Your task to perform on an android device: turn on improve location accuracy Image 0: 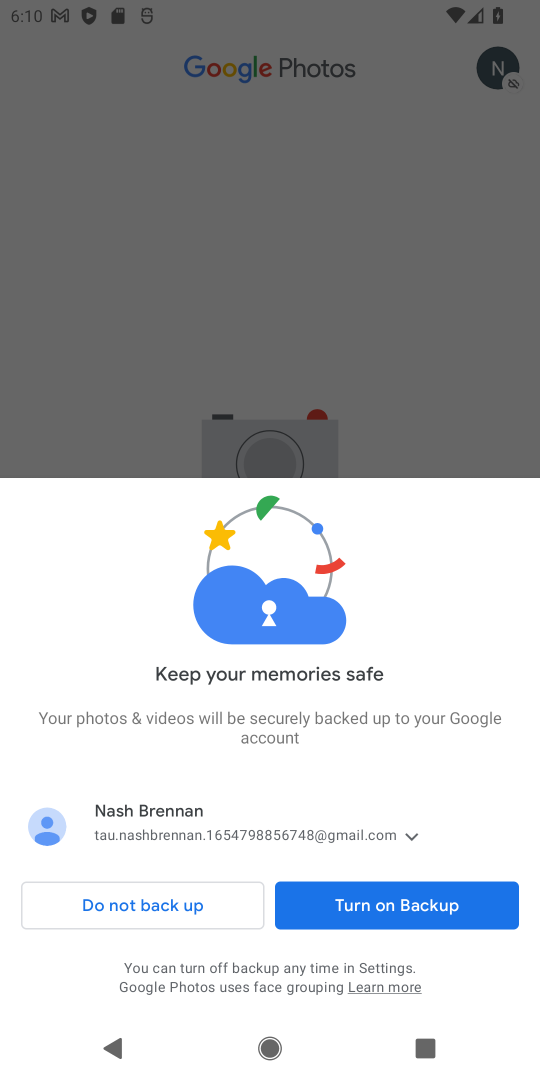
Step 0: press home button
Your task to perform on an android device: turn on improve location accuracy Image 1: 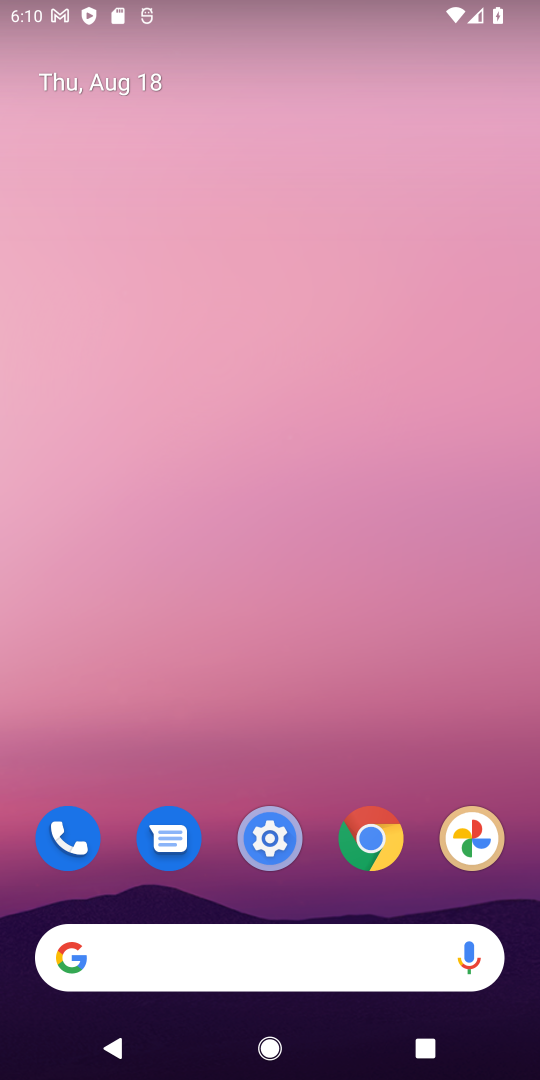
Step 1: click (272, 864)
Your task to perform on an android device: turn on improve location accuracy Image 2: 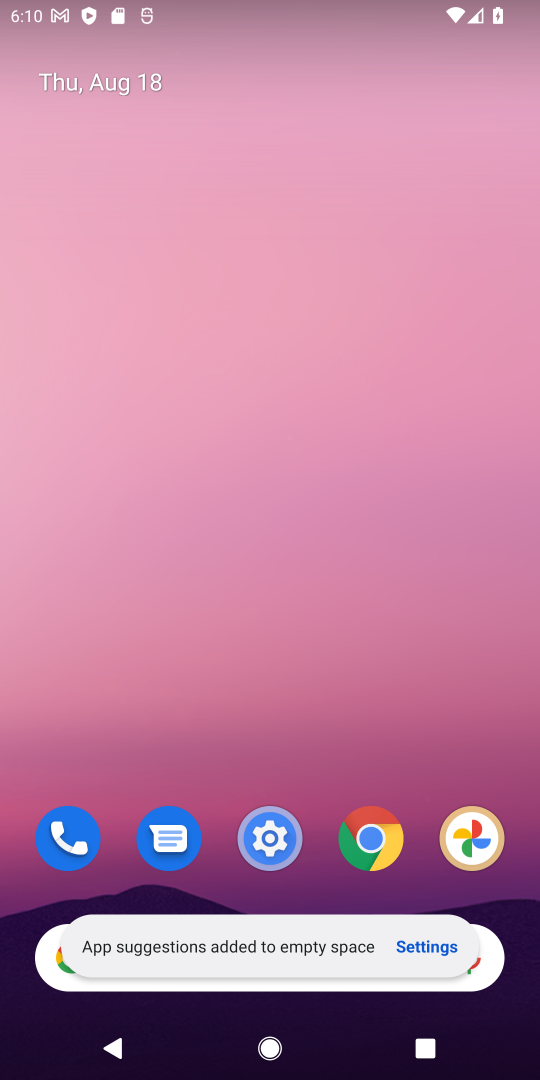
Step 2: click (275, 838)
Your task to perform on an android device: turn on improve location accuracy Image 3: 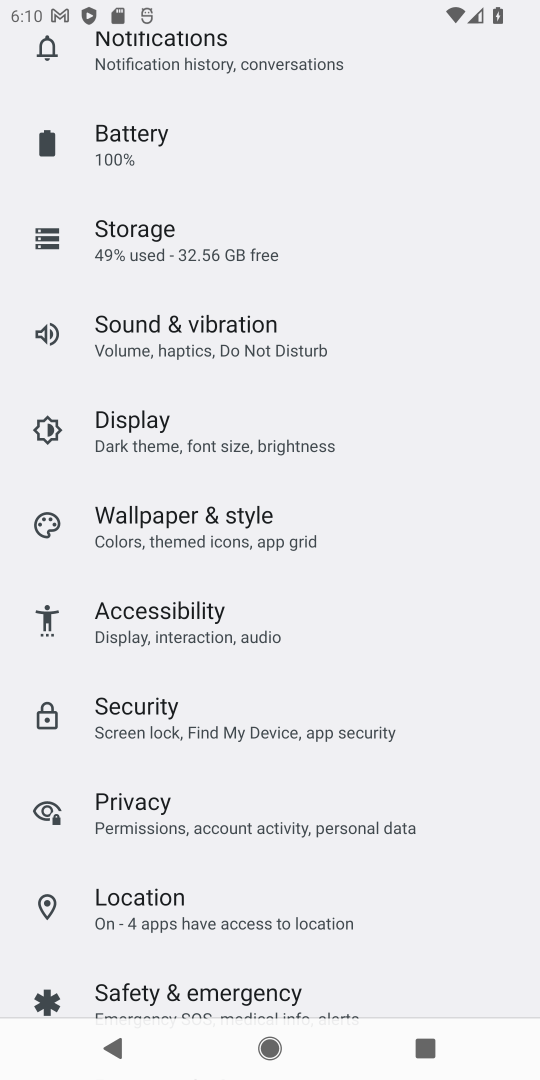
Step 3: click (147, 901)
Your task to perform on an android device: turn on improve location accuracy Image 4: 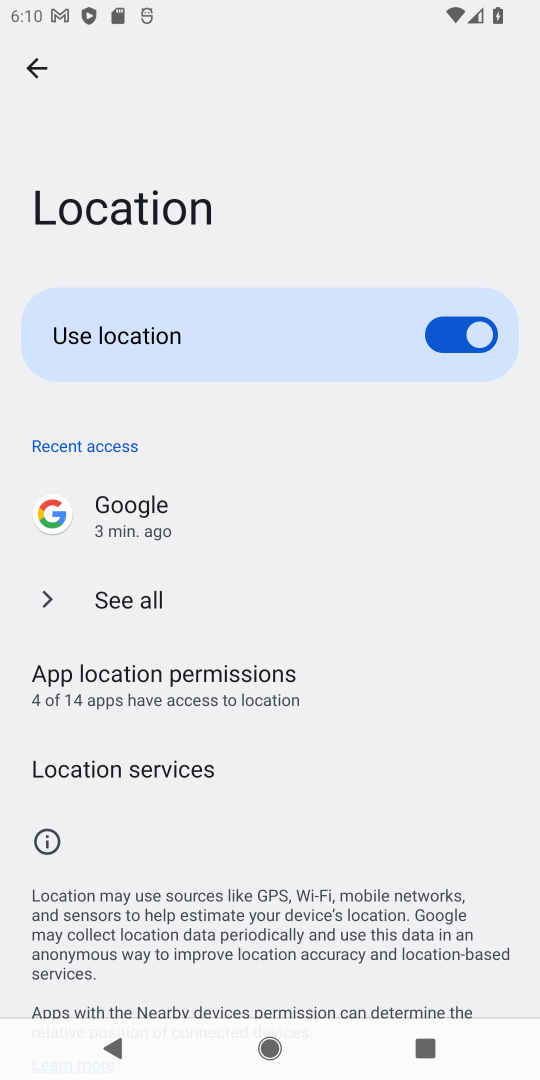
Step 4: click (114, 777)
Your task to perform on an android device: turn on improve location accuracy Image 5: 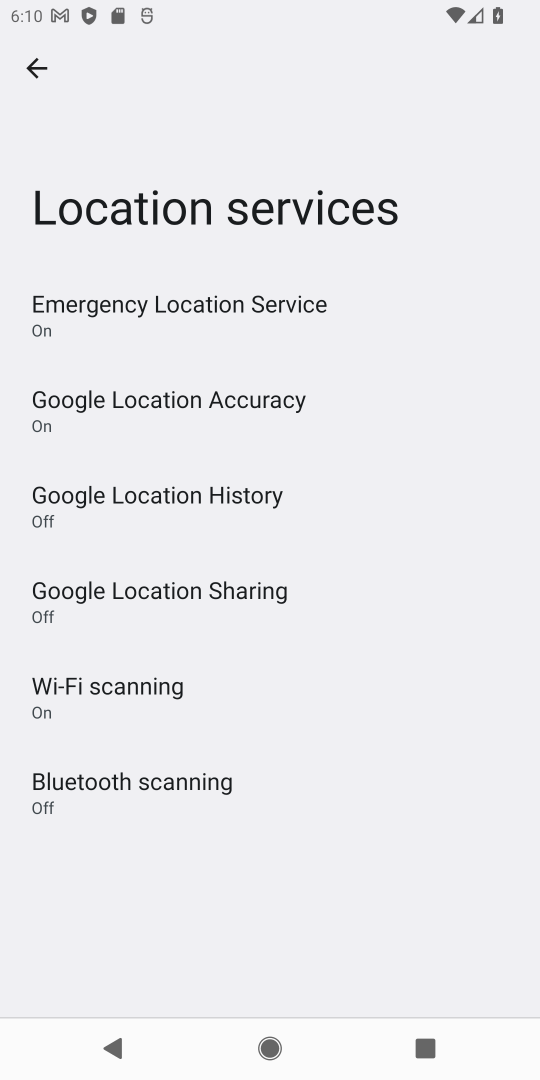
Step 5: click (177, 407)
Your task to perform on an android device: turn on improve location accuracy Image 6: 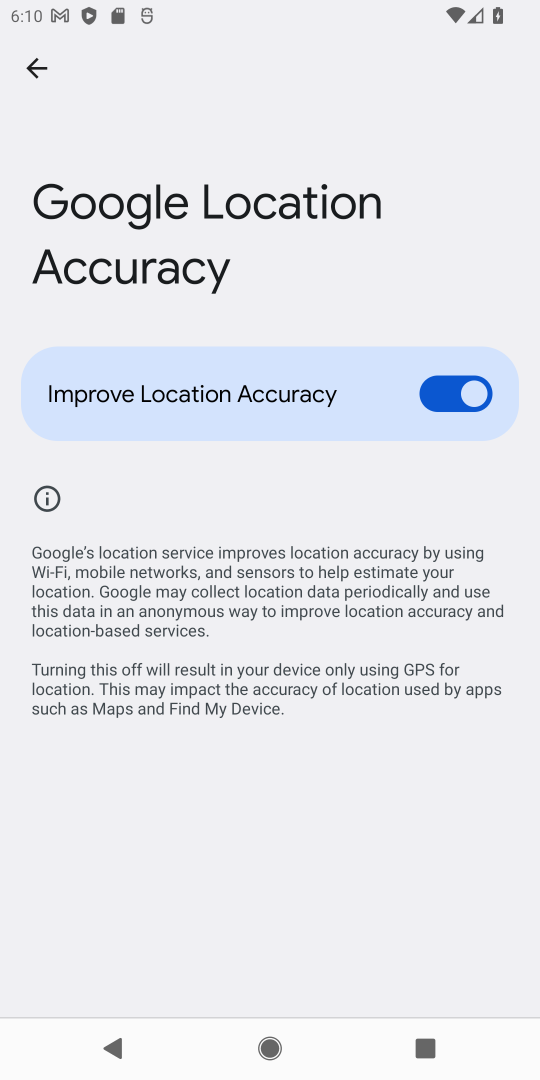
Step 6: task complete